Your task to perform on an android device: See recent photos Image 0: 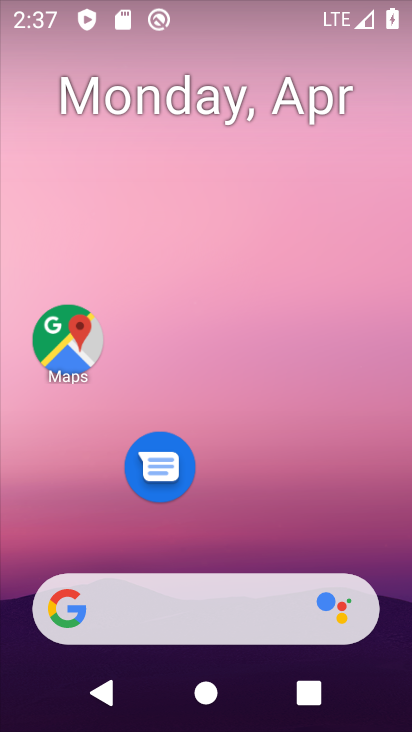
Step 0: drag from (268, 519) to (269, 22)
Your task to perform on an android device: See recent photos Image 1: 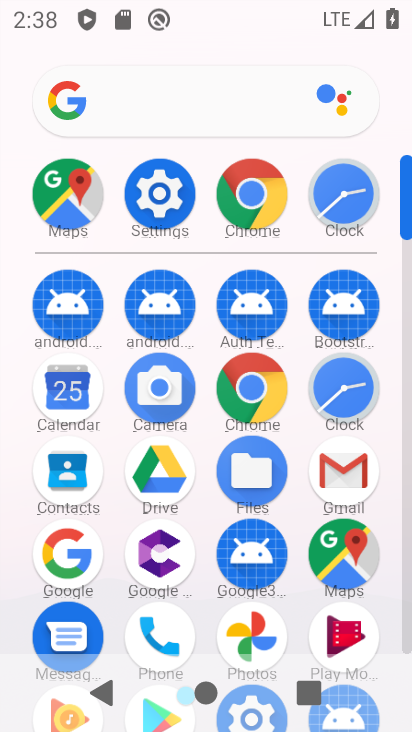
Step 1: click (266, 634)
Your task to perform on an android device: See recent photos Image 2: 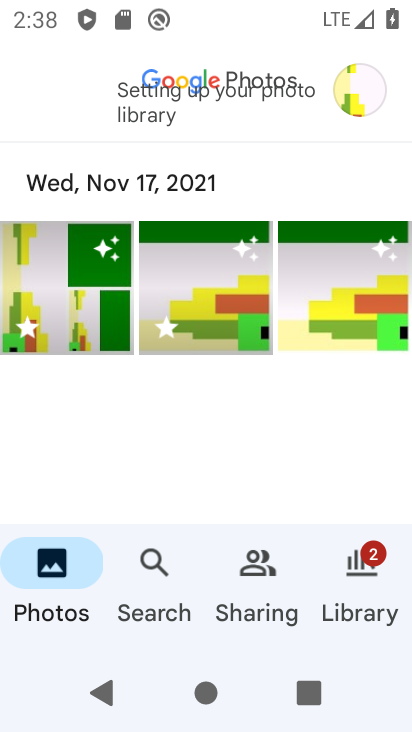
Step 2: task complete